Your task to perform on an android device: What's the weather going to be this weekend? Image 0: 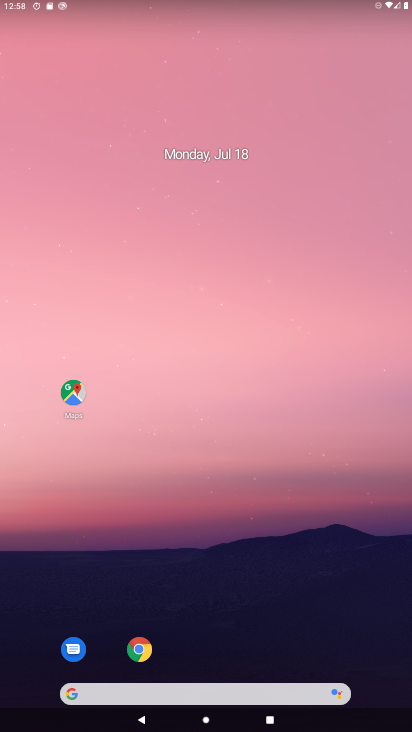
Step 0: click (99, 686)
Your task to perform on an android device: What's the weather going to be this weekend? Image 1: 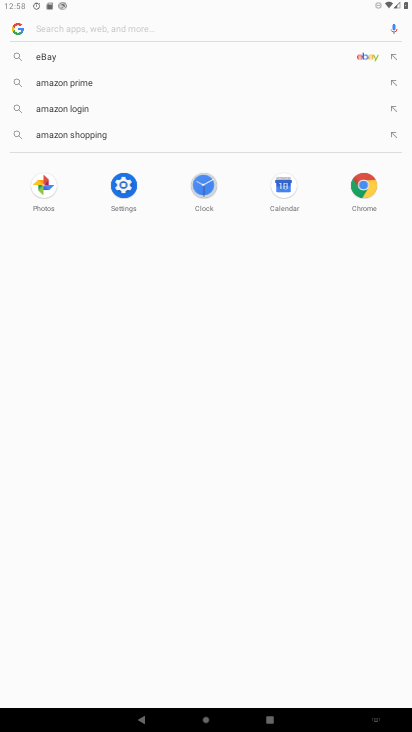
Step 1: type "What's the weather going to be this weekend?"
Your task to perform on an android device: What's the weather going to be this weekend? Image 2: 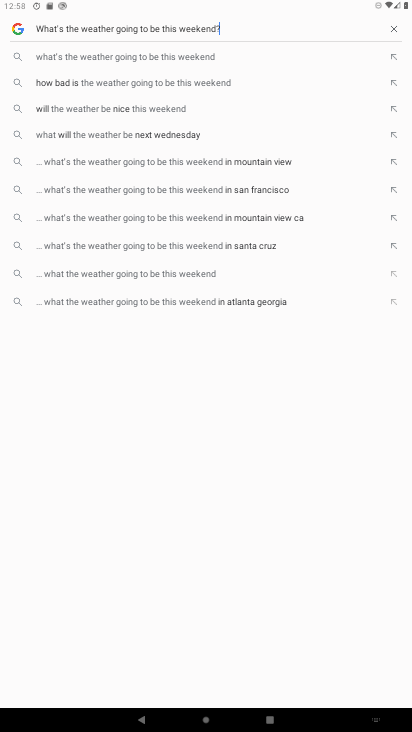
Step 2: type ""
Your task to perform on an android device: What's the weather going to be this weekend? Image 3: 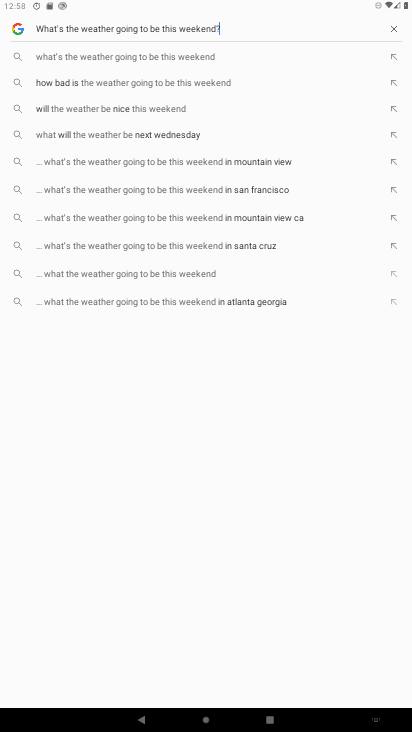
Step 3: type ""
Your task to perform on an android device: What's the weather going to be this weekend? Image 4: 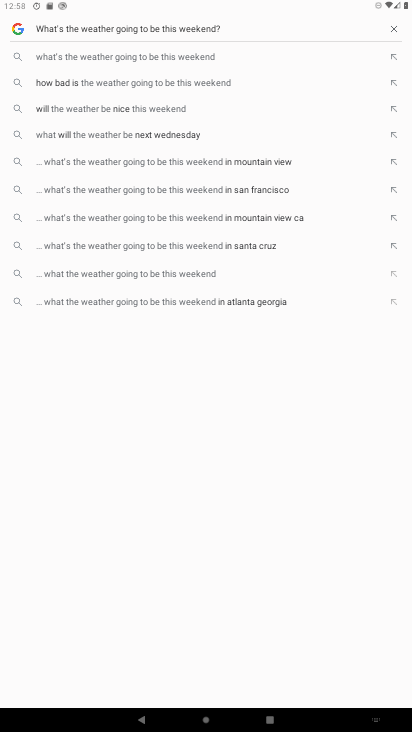
Step 4: type ""
Your task to perform on an android device: What's the weather going to be this weekend? Image 5: 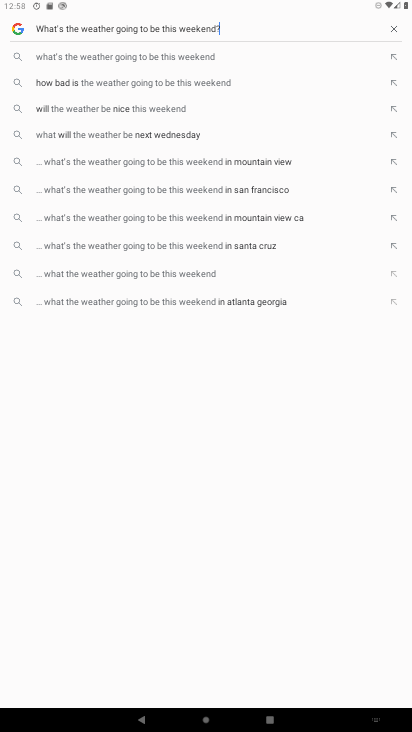
Step 5: type ""
Your task to perform on an android device: What's the weather going to be this weekend? Image 6: 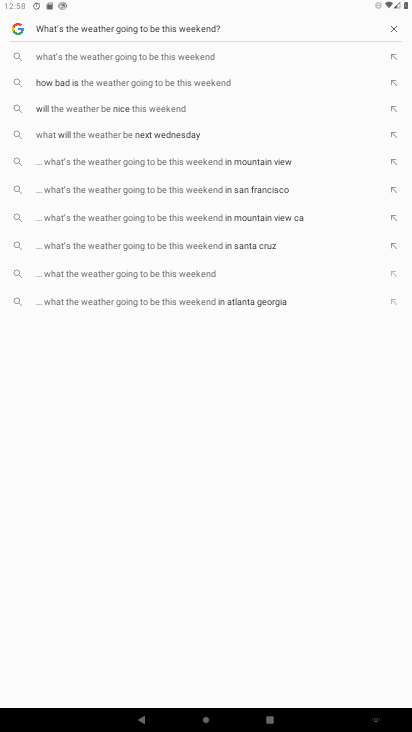
Step 6: task complete